Your task to perform on an android device: change notification settings in the gmail app Image 0: 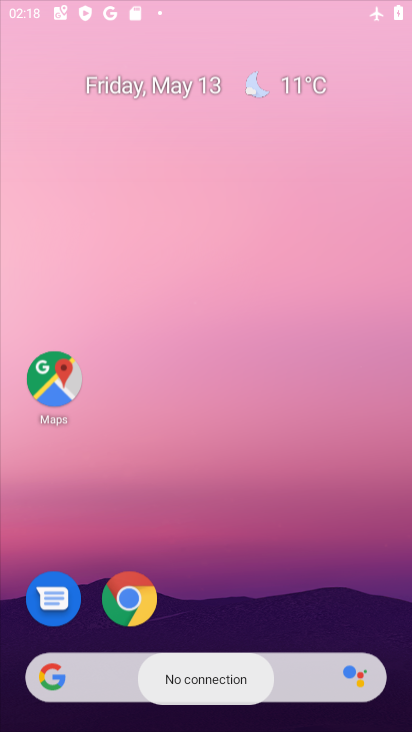
Step 0: click (302, 127)
Your task to perform on an android device: change notification settings in the gmail app Image 1: 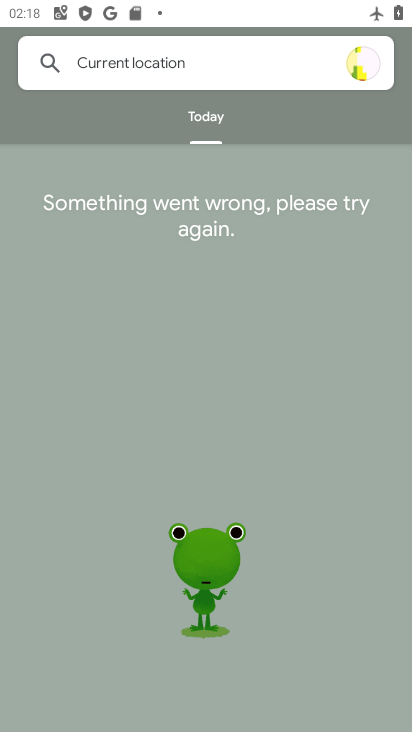
Step 1: press home button
Your task to perform on an android device: change notification settings in the gmail app Image 2: 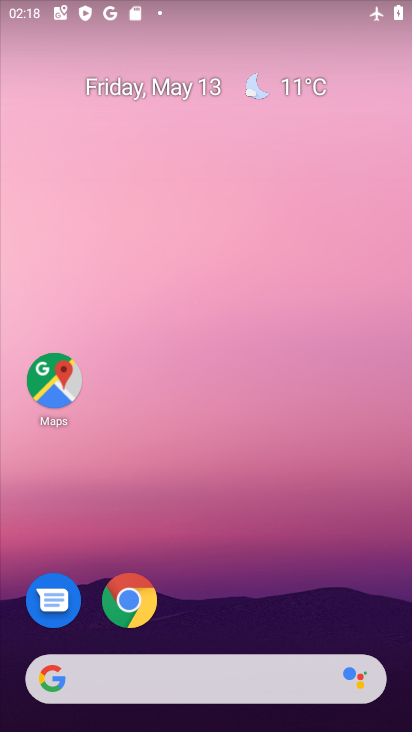
Step 2: drag from (165, 628) to (230, 98)
Your task to perform on an android device: change notification settings in the gmail app Image 3: 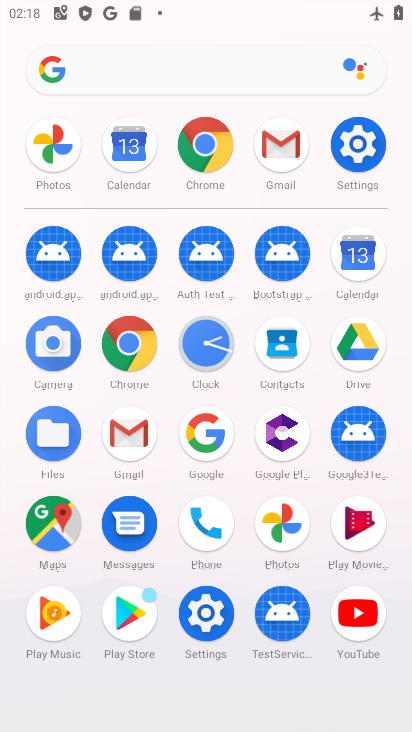
Step 3: click (132, 427)
Your task to perform on an android device: change notification settings in the gmail app Image 4: 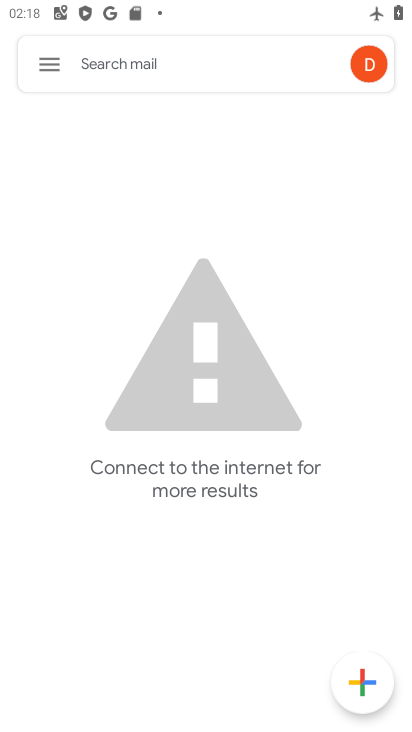
Step 4: click (51, 58)
Your task to perform on an android device: change notification settings in the gmail app Image 5: 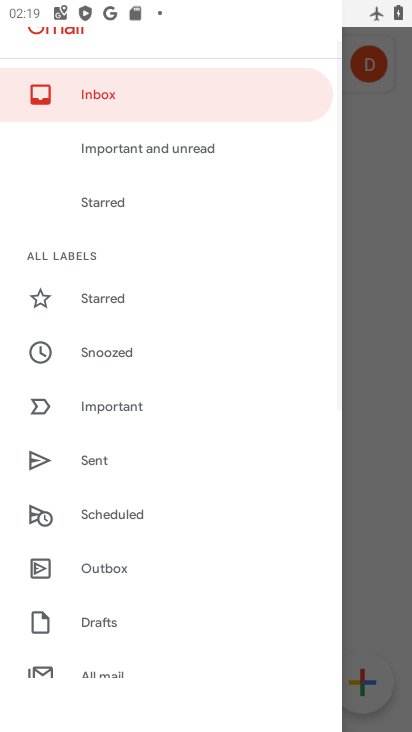
Step 5: drag from (108, 654) to (265, 26)
Your task to perform on an android device: change notification settings in the gmail app Image 6: 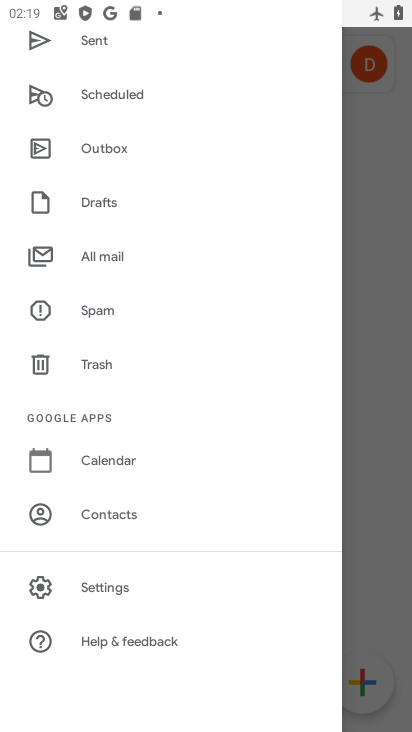
Step 6: click (115, 588)
Your task to perform on an android device: change notification settings in the gmail app Image 7: 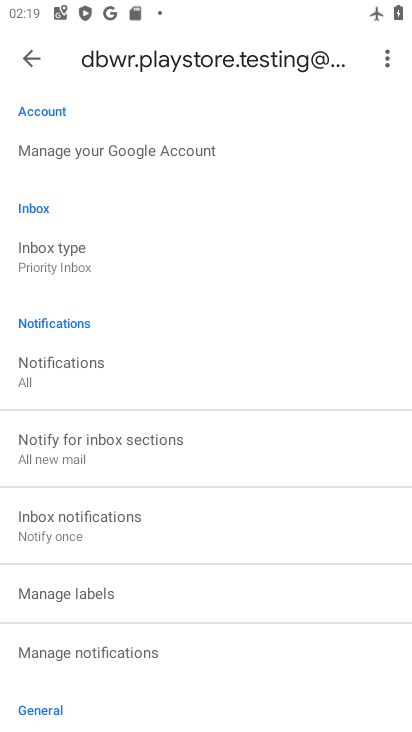
Step 7: click (111, 646)
Your task to perform on an android device: change notification settings in the gmail app Image 8: 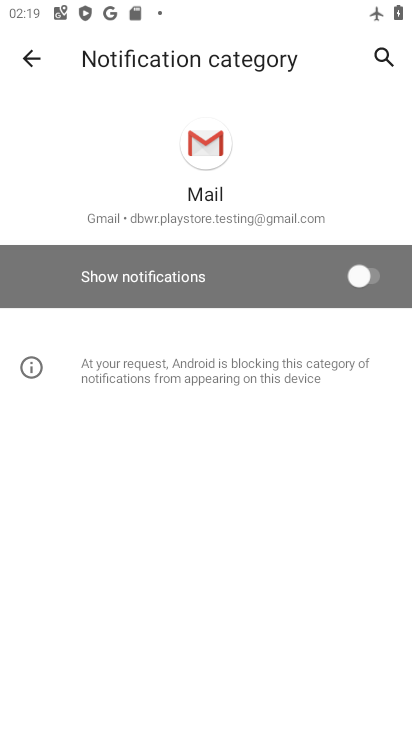
Step 8: click (342, 293)
Your task to perform on an android device: change notification settings in the gmail app Image 9: 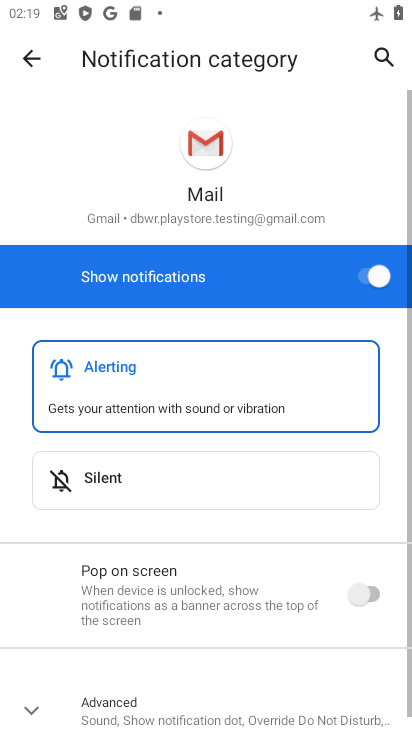
Step 9: task complete